Your task to perform on an android device: Open location settings Image 0: 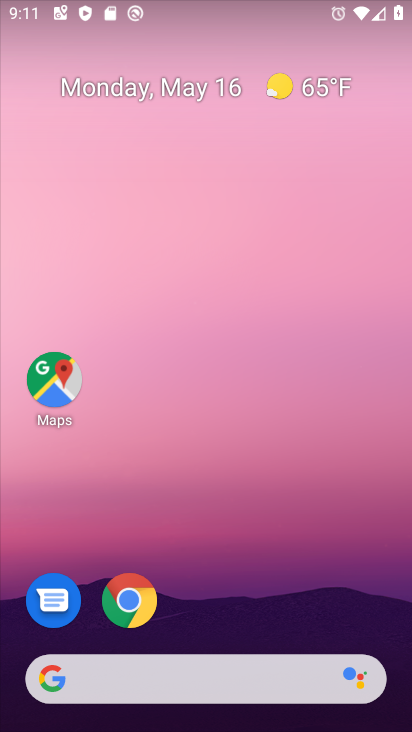
Step 0: drag from (265, 378) to (310, 170)
Your task to perform on an android device: Open location settings Image 1: 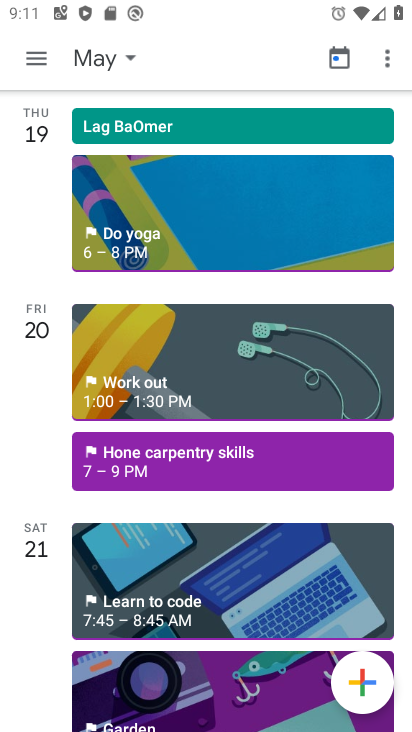
Step 1: drag from (296, 425) to (319, 247)
Your task to perform on an android device: Open location settings Image 2: 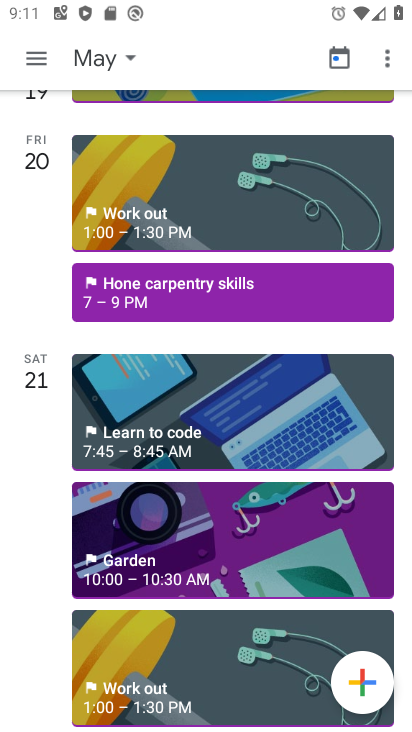
Step 2: click (114, 63)
Your task to perform on an android device: Open location settings Image 3: 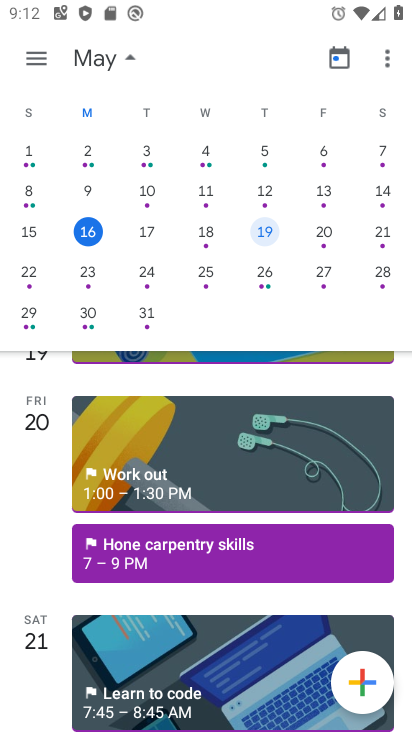
Step 3: press home button
Your task to perform on an android device: Open location settings Image 4: 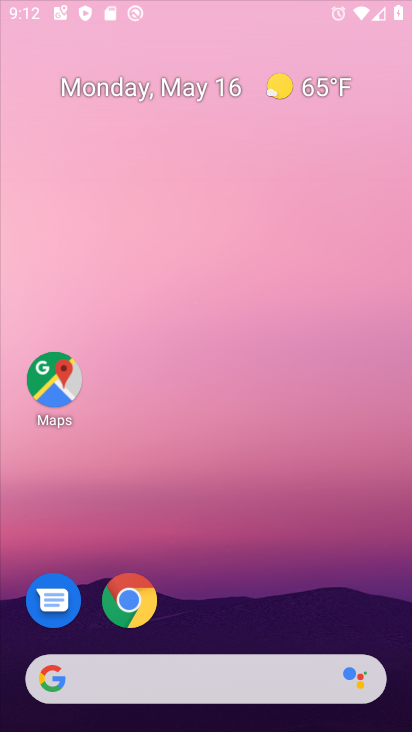
Step 4: drag from (146, 676) to (290, 170)
Your task to perform on an android device: Open location settings Image 5: 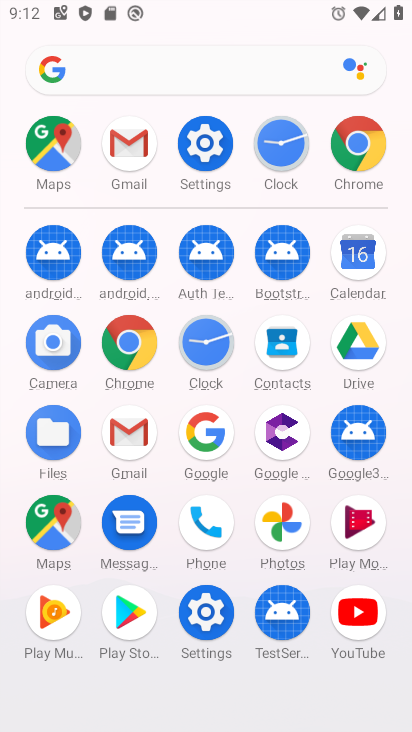
Step 5: click (202, 604)
Your task to perform on an android device: Open location settings Image 6: 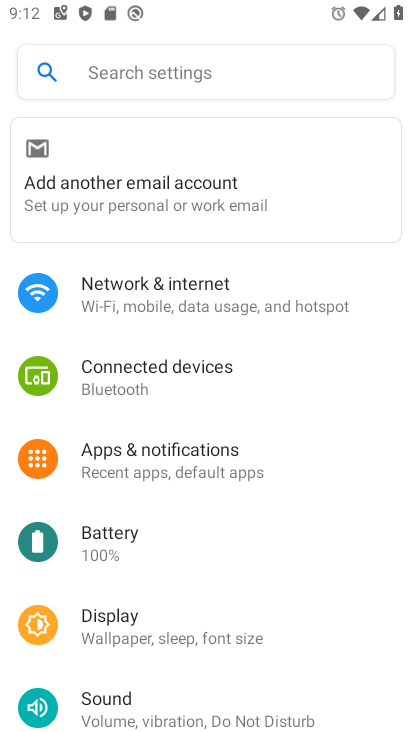
Step 6: drag from (193, 730) to (294, 137)
Your task to perform on an android device: Open location settings Image 7: 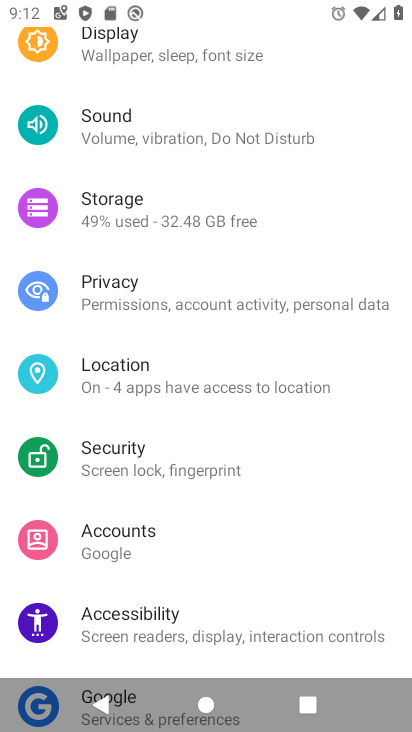
Step 7: click (171, 376)
Your task to perform on an android device: Open location settings Image 8: 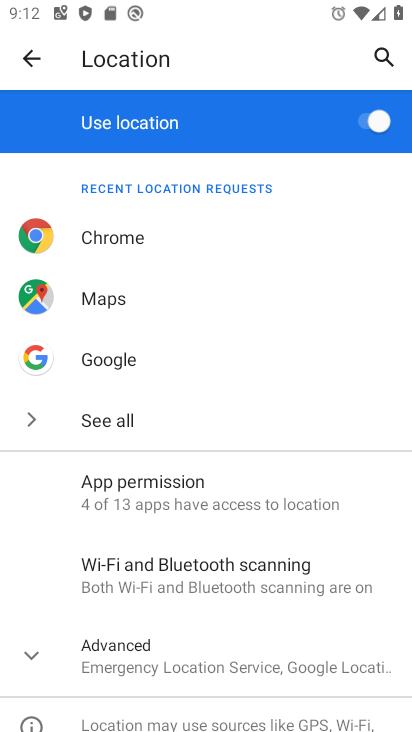
Step 8: click (158, 647)
Your task to perform on an android device: Open location settings Image 9: 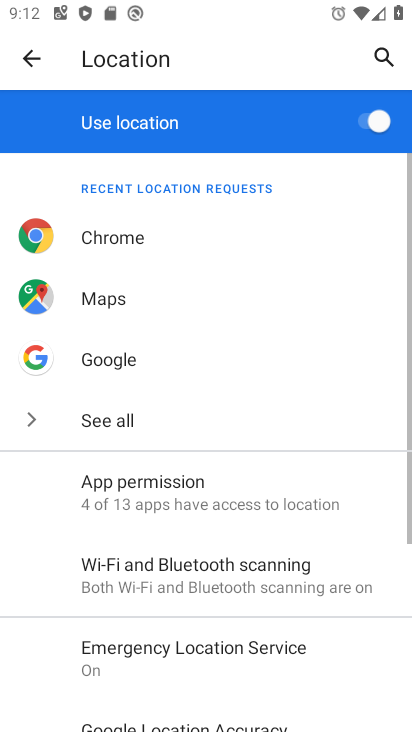
Step 9: task complete